Your task to perform on an android device: See recent photos Image 0: 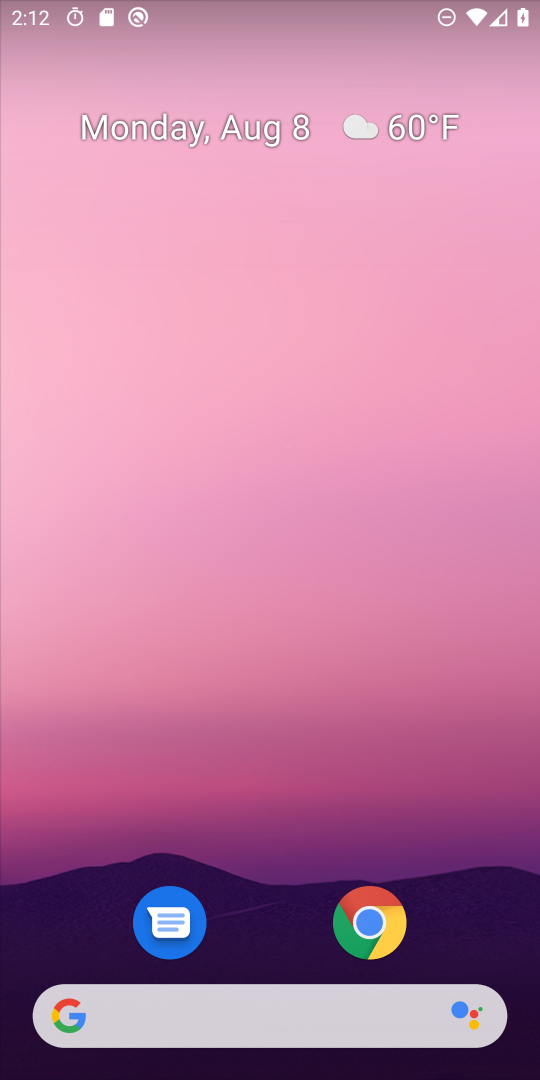
Step 0: drag from (284, 882) to (365, 133)
Your task to perform on an android device: See recent photos Image 1: 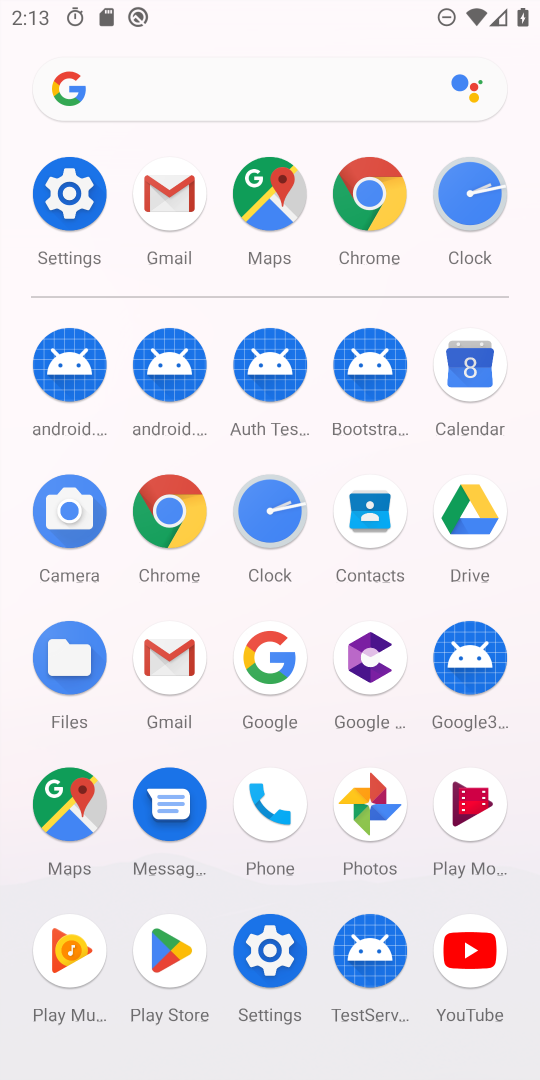
Step 1: click (382, 818)
Your task to perform on an android device: See recent photos Image 2: 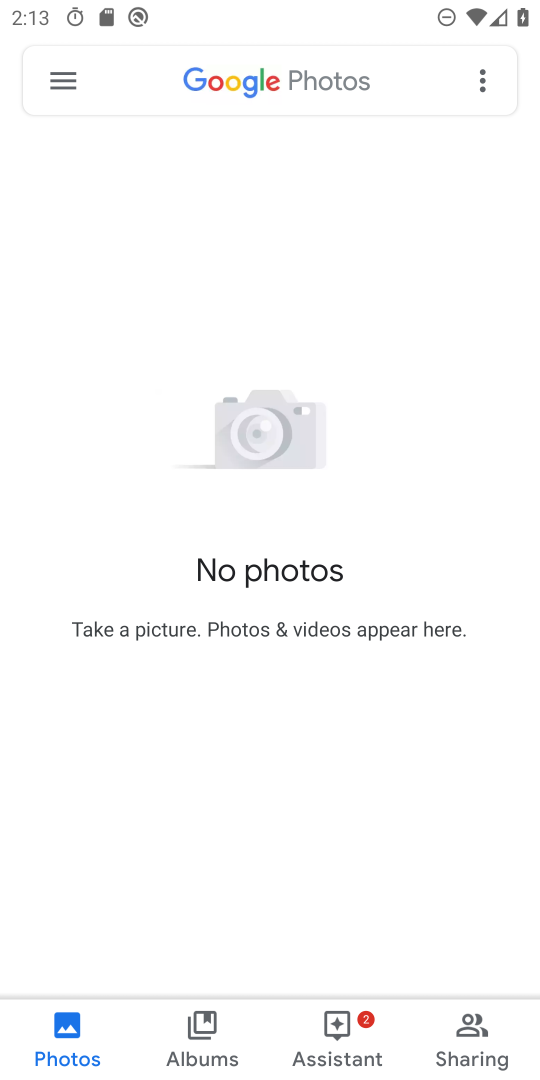
Step 2: task complete